Your task to perform on an android device: Go to sound settings Image 0: 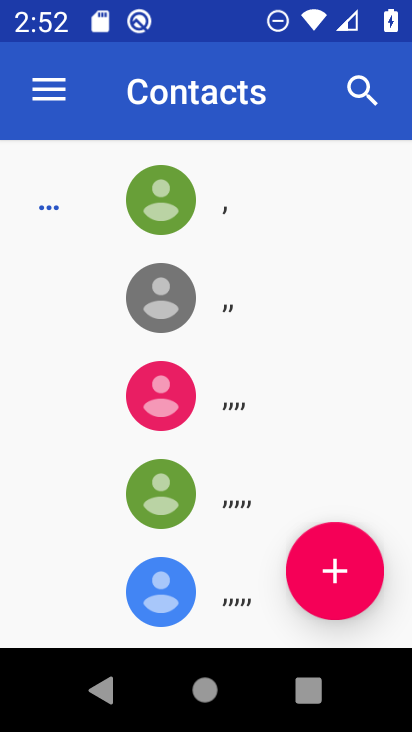
Step 0: press home button
Your task to perform on an android device: Go to sound settings Image 1: 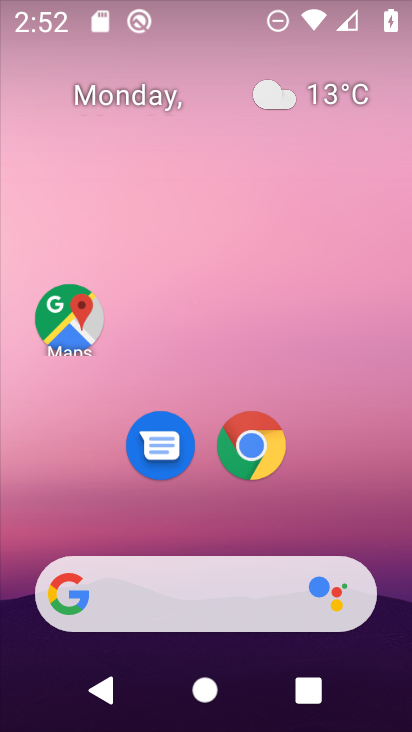
Step 1: drag from (393, 643) to (404, 316)
Your task to perform on an android device: Go to sound settings Image 2: 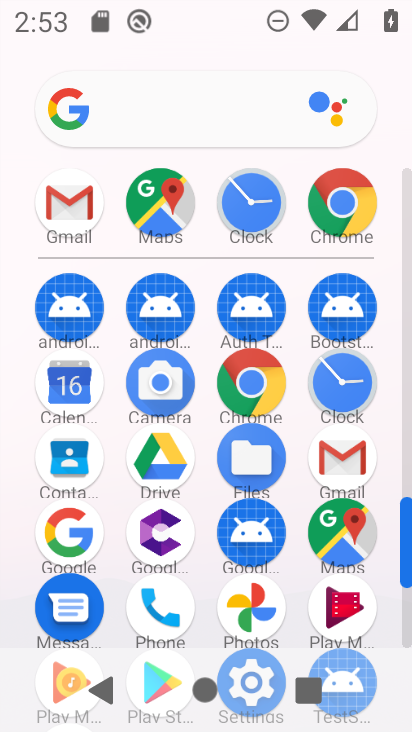
Step 2: drag from (208, 564) to (229, 96)
Your task to perform on an android device: Go to sound settings Image 3: 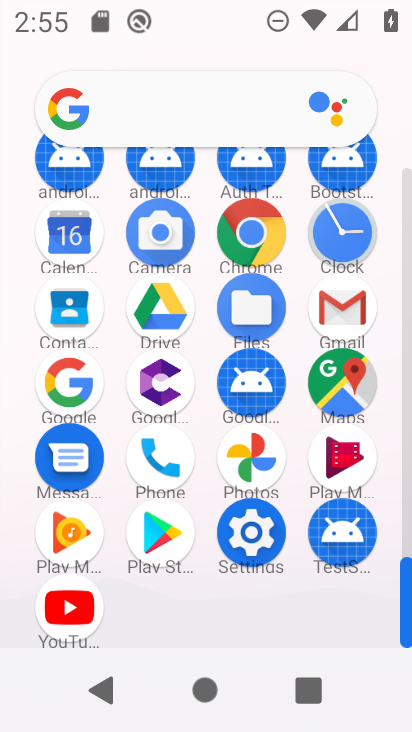
Step 3: click (233, 523)
Your task to perform on an android device: Go to sound settings Image 4: 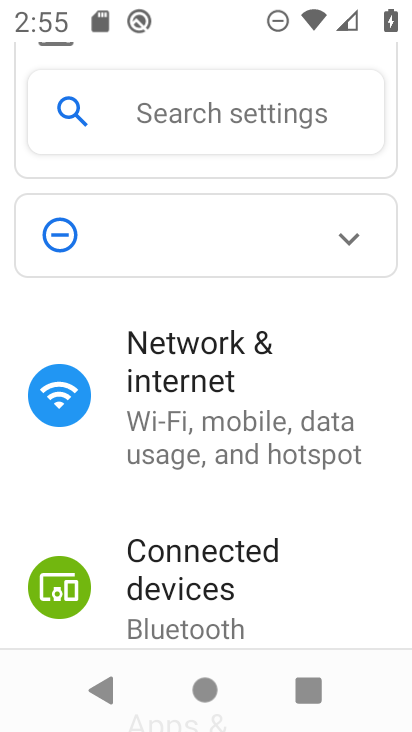
Step 4: drag from (177, 591) to (233, 9)
Your task to perform on an android device: Go to sound settings Image 5: 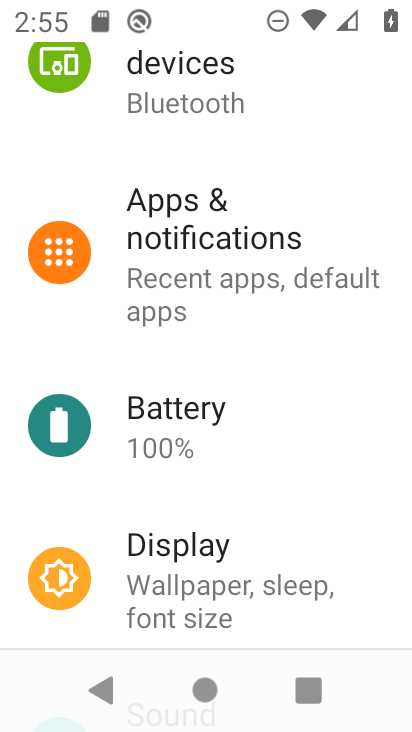
Step 5: drag from (177, 538) to (257, 96)
Your task to perform on an android device: Go to sound settings Image 6: 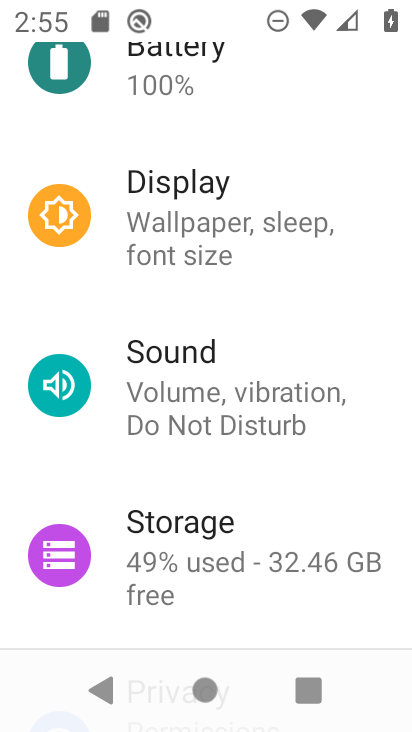
Step 6: drag from (152, 490) to (221, 326)
Your task to perform on an android device: Go to sound settings Image 7: 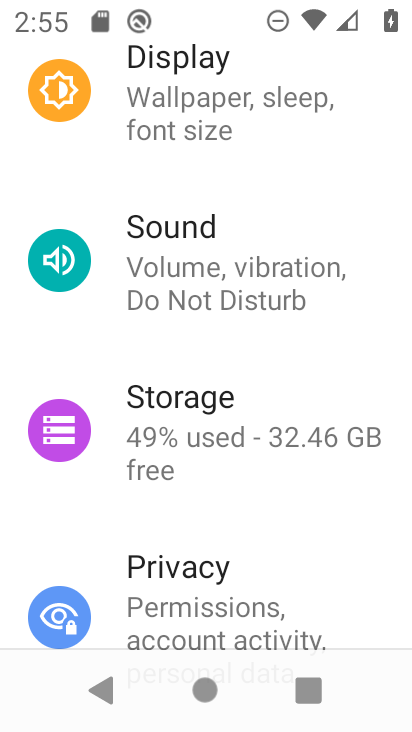
Step 7: click (194, 270)
Your task to perform on an android device: Go to sound settings Image 8: 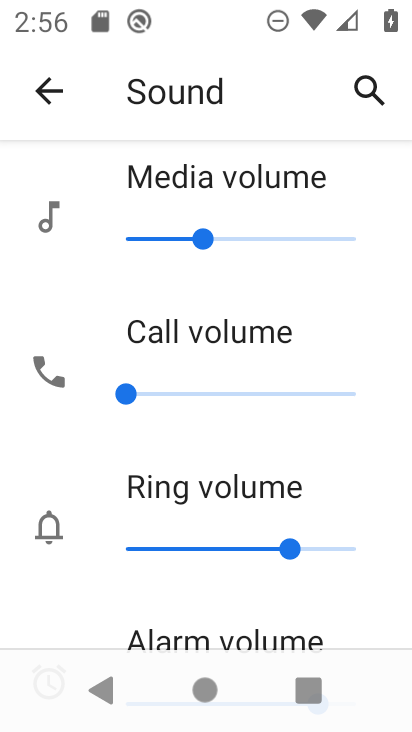
Step 8: task complete